Your task to perform on an android device: move a message to another label in the gmail app Image 0: 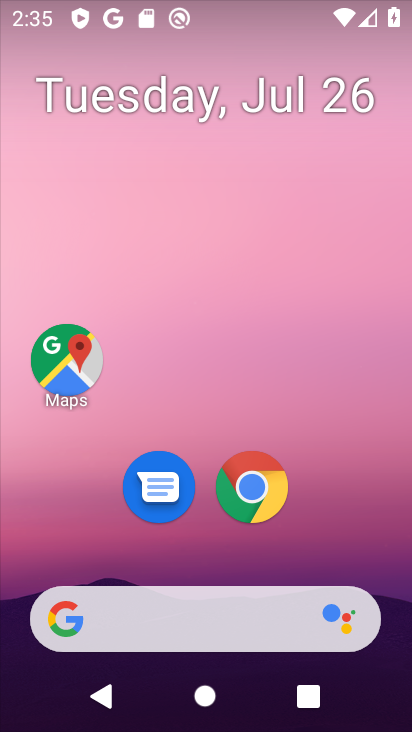
Step 0: drag from (250, 567) to (313, 0)
Your task to perform on an android device: move a message to another label in the gmail app Image 1: 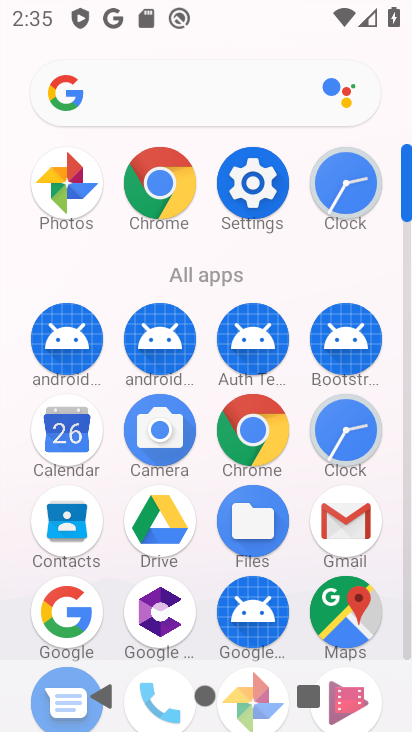
Step 1: click (350, 529)
Your task to perform on an android device: move a message to another label in the gmail app Image 2: 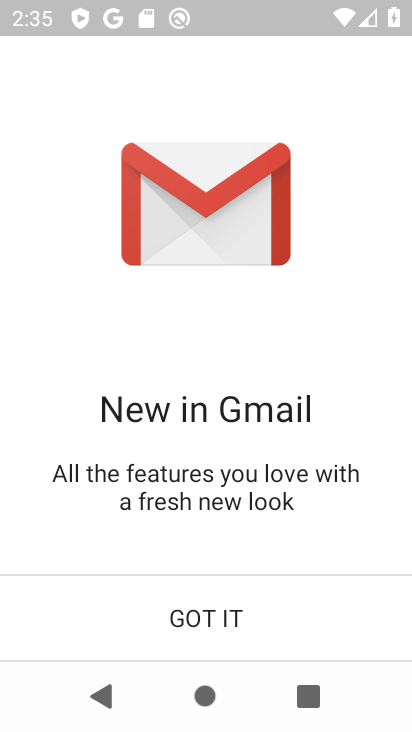
Step 2: click (179, 599)
Your task to perform on an android device: move a message to another label in the gmail app Image 3: 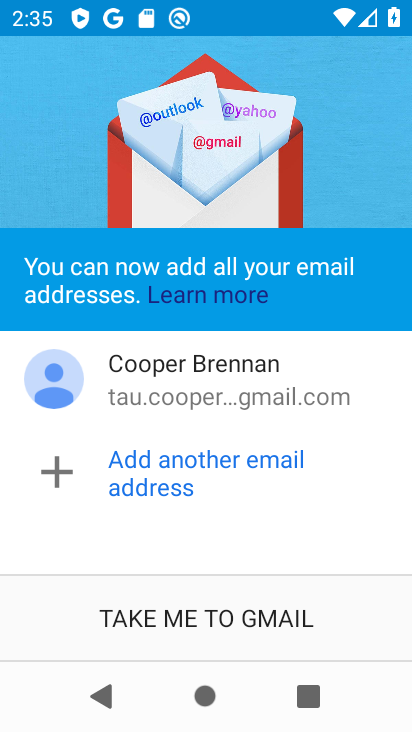
Step 3: click (176, 618)
Your task to perform on an android device: move a message to another label in the gmail app Image 4: 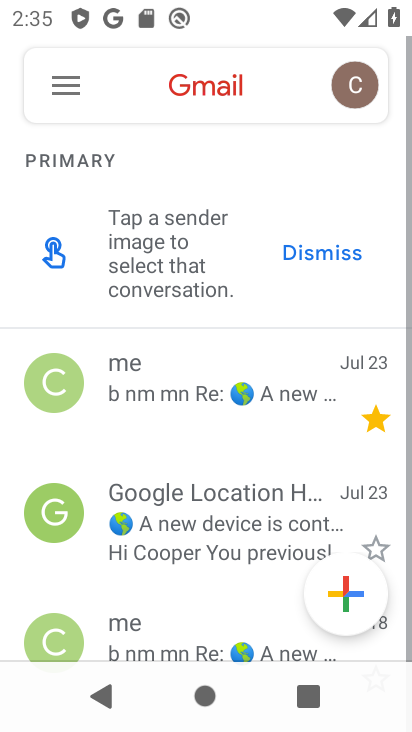
Step 4: click (69, 83)
Your task to perform on an android device: move a message to another label in the gmail app Image 5: 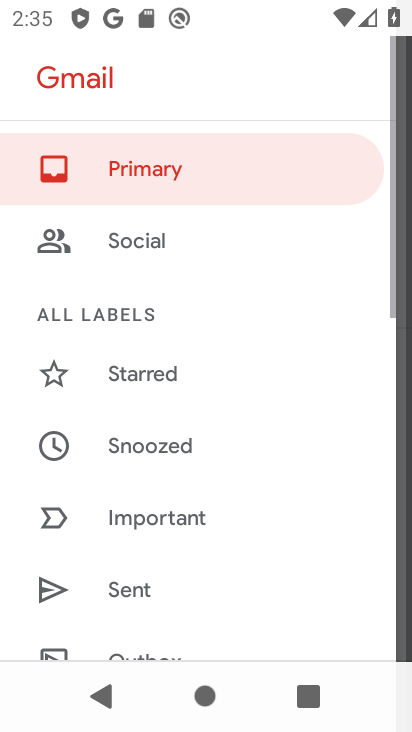
Step 5: drag from (159, 605) to (263, 95)
Your task to perform on an android device: move a message to another label in the gmail app Image 6: 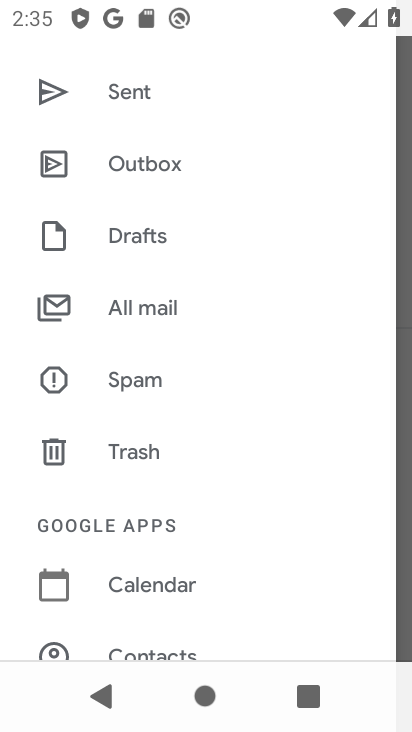
Step 6: click (166, 311)
Your task to perform on an android device: move a message to another label in the gmail app Image 7: 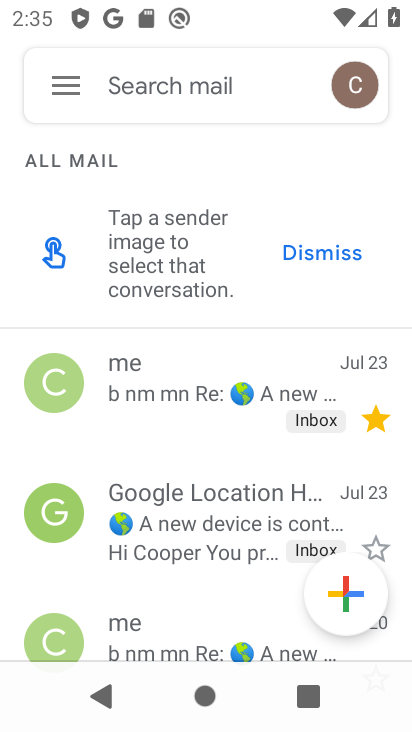
Step 7: drag from (206, 584) to (233, 401)
Your task to perform on an android device: move a message to another label in the gmail app Image 8: 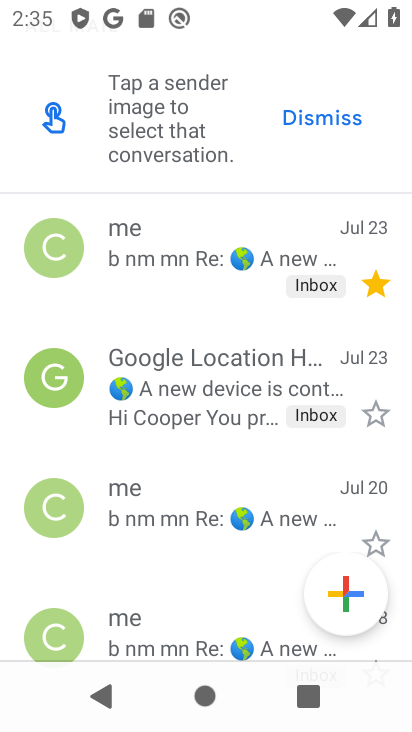
Step 8: click (194, 371)
Your task to perform on an android device: move a message to another label in the gmail app Image 9: 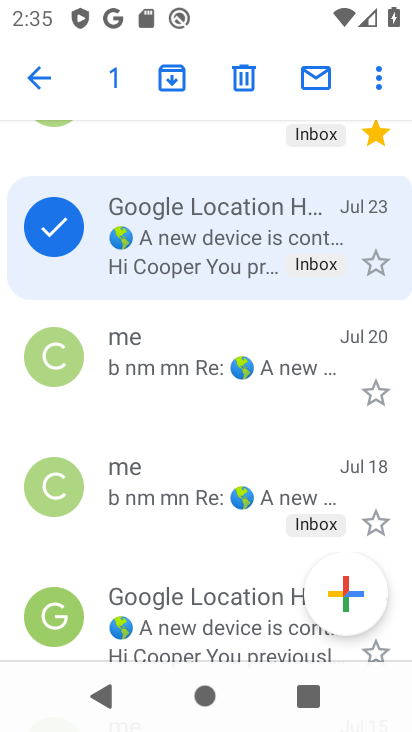
Step 9: click (371, 86)
Your task to perform on an android device: move a message to another label in the gmail app Image 10: 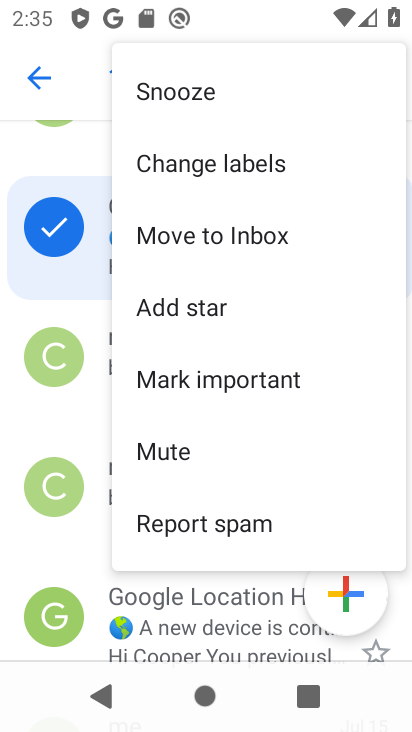
Step 10: click (227, 234)
Your task to perform on an android device: move a message to another label in the gmail app Image 11: 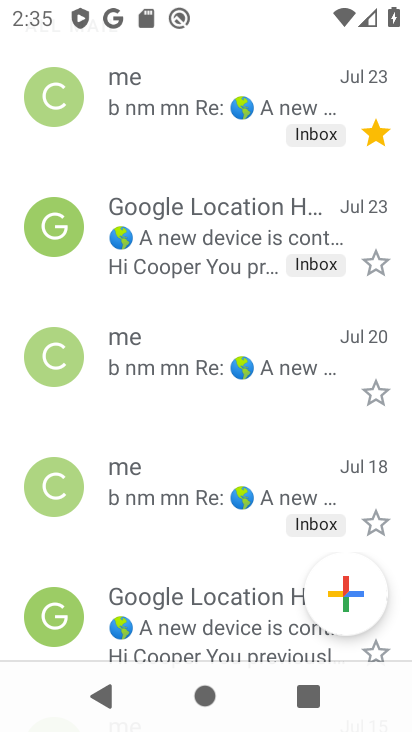
Step 11: task complete